Your task to perform on an android device: Open Google Chrome and open the bookmarks view Image 0: 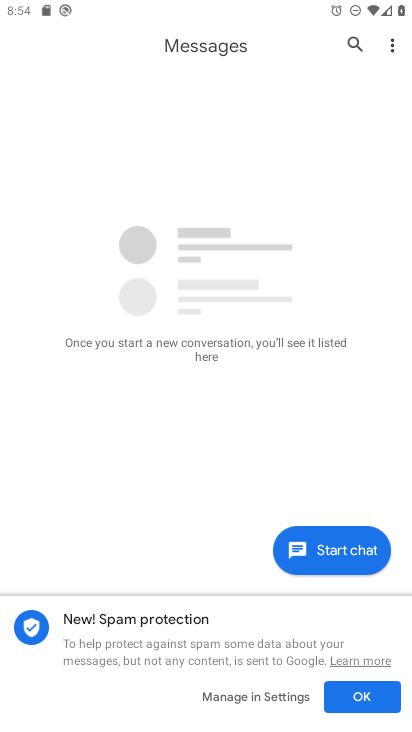
Step 0: press home button
Your task to perform on an android device: Open Google Chrome and open the bookmarks view Image 1: 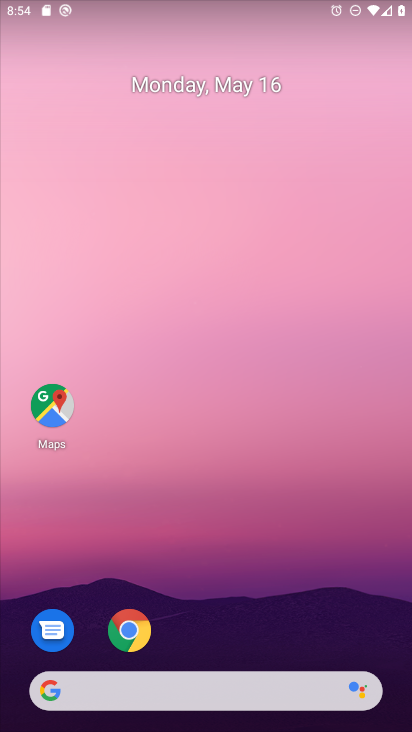
Step 1: click (128, 627)
Your task to perform on an android device: Open Google Chrome and open the bookmarks view Image 2: 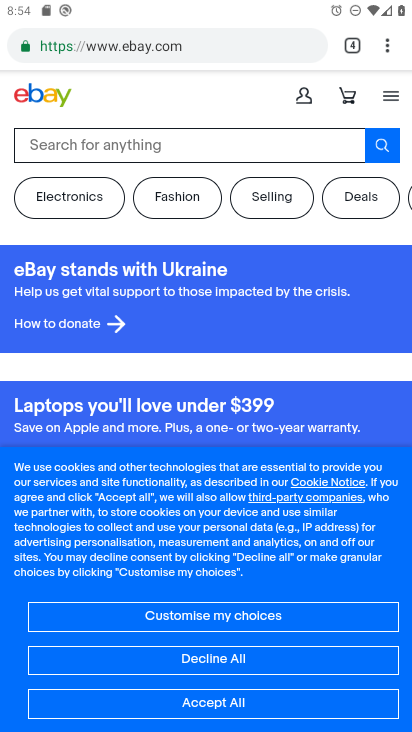
Step 2: click (377, 39)
Your task to perform on an android device: Open Google Chrome and open the bookmarks view Image 3: 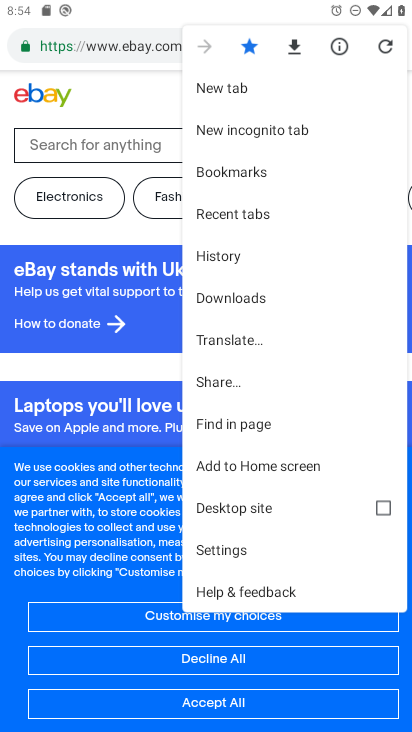
Step 3: click (259, 161)
Your task to perform on an android device: Open Google Chrome and open the bookmarks view Image 4: 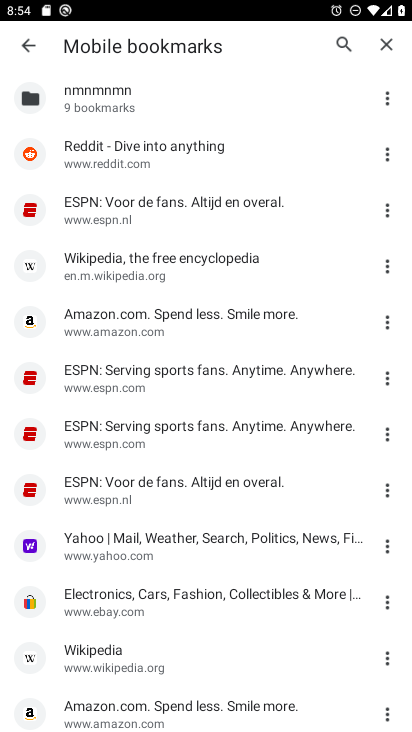
Step 4: task complete